Your task to perform on an android device: Go to wifi settings Image 0: 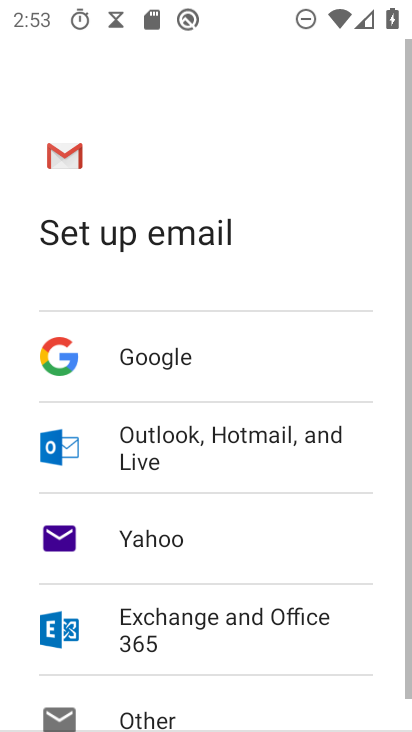
Step 0: press home button
Your task to perform on an android device: Go to wifi settings Image 1: 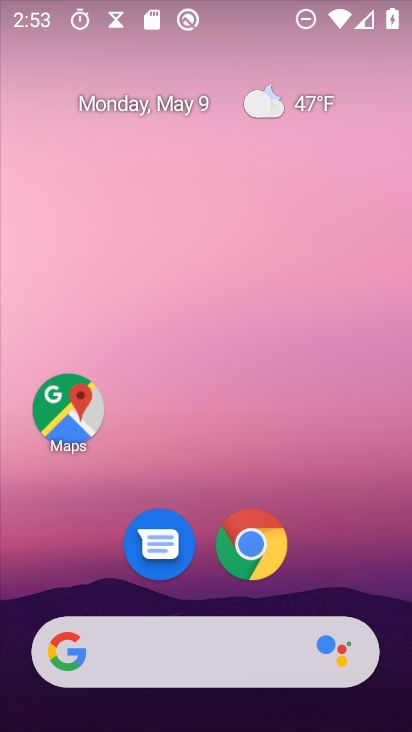
Step 1: drag from (350, 539) to (260, 88)
Your task to perform on an android device: Go to wifi settings Image 2: 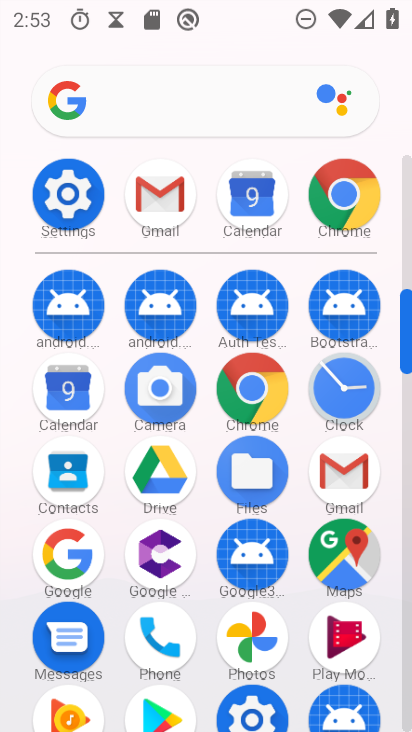
Step 2: click (71, 216)
Your task to perform on an android device: Go to wifi settings Image 3: 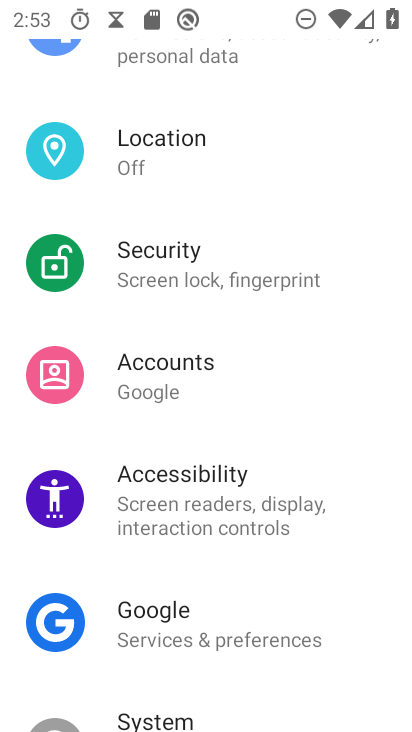
Step 3: drag from (239, 210) to (326, 658)
Your task to perform on an android device: Go to wifi settings Image 4: 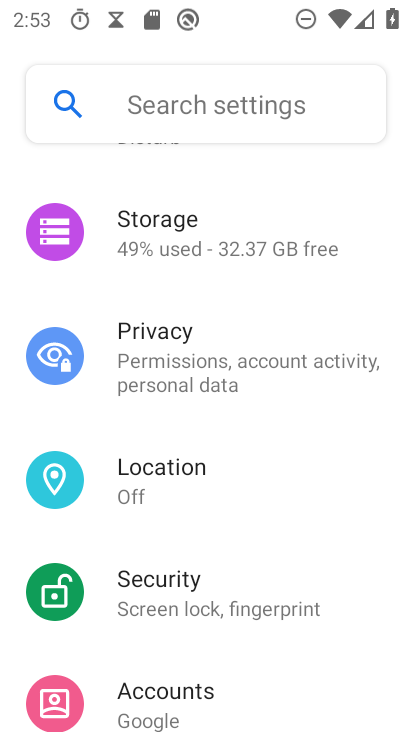
Step 4: drag from (259, 275) to (306, 629)
Your task to perform on an android device: Go to wifi settings Image 5: 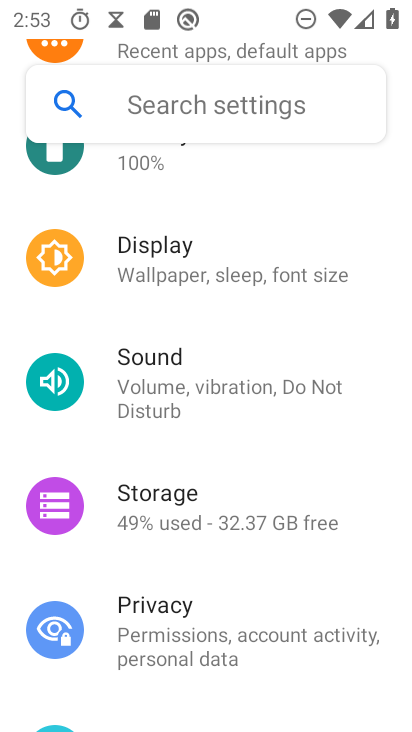
Step 5: drag from (243, 154) to (296, 624)
Your task to perform on an android device: Go to wifi settings Image 6: 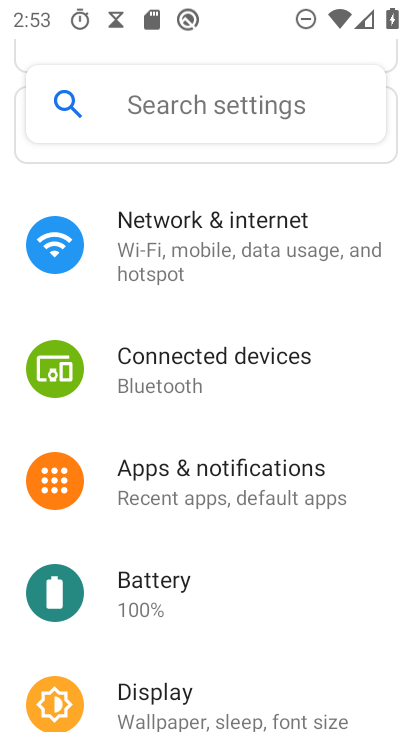
Step 6: drag from (230, 269) to (309, 681)
Your task to perform on an android device: Go to wifi settings Image 7: 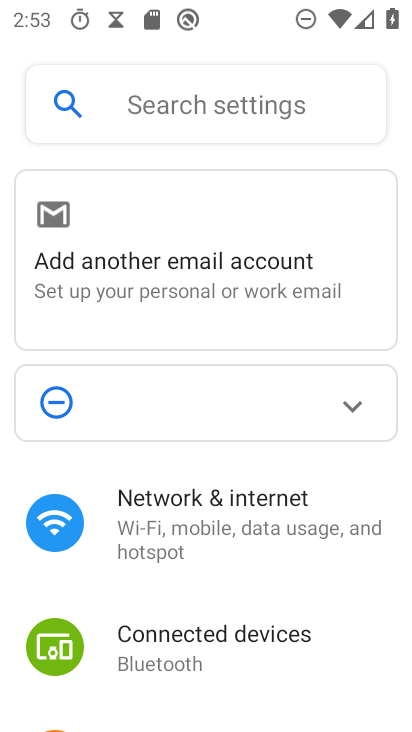
Step 7: click (211, 534)
Your task to perform on an android device: Go to wifi settings Image 8: 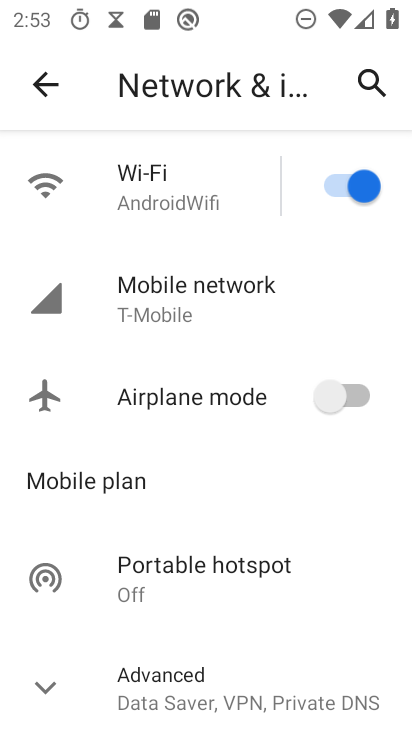
Step 8: click (127, 211)
Your task to perform on an android device: Go to wifi settings Image 9: 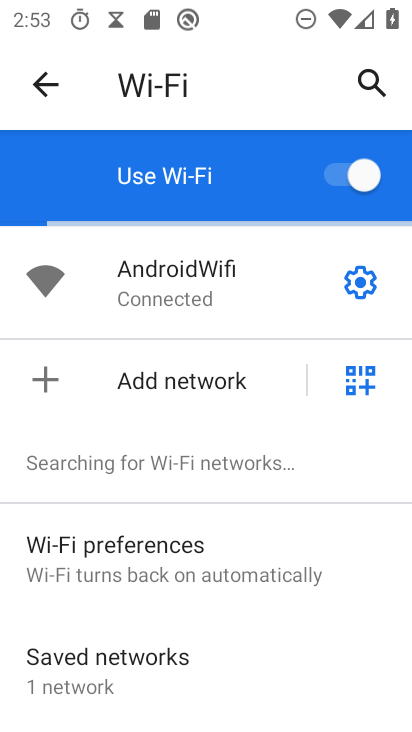
Step 9: task complete